Your task to perform on an android device: Open ESPN.com Image 0: 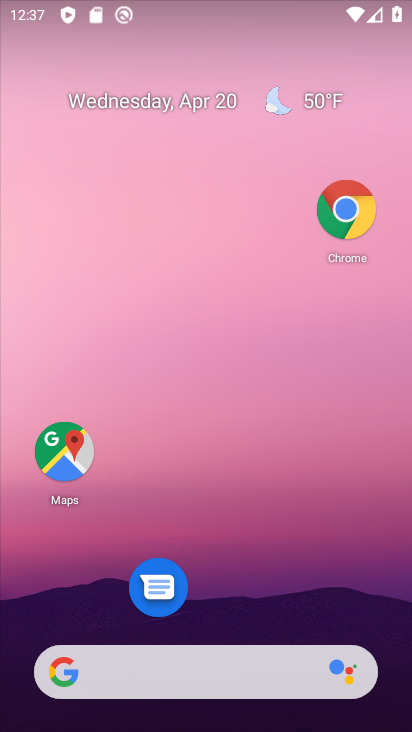
Step 0: click (349, 218)
Your task to perform on an android device: Open ESPN.com Image 1: 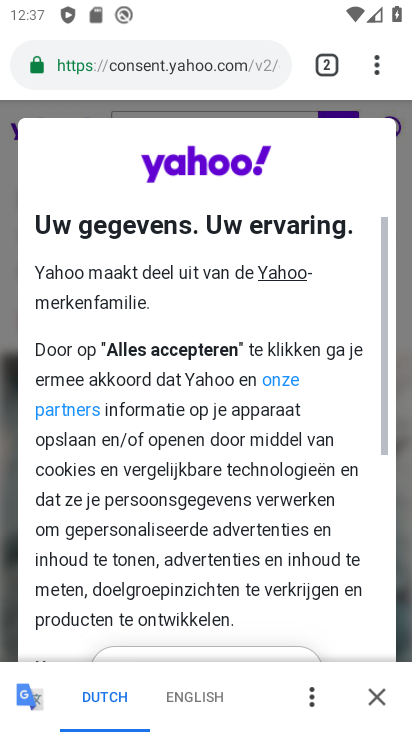
Step 1: click (387, 706)
Your task to perform on an android device: Open ESPN.com Image 2: 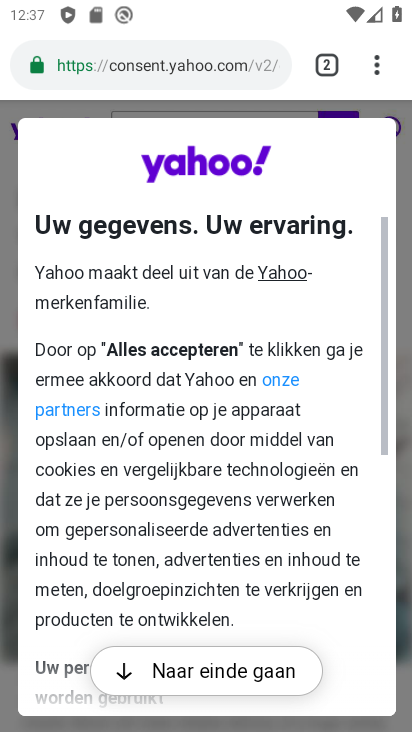
Step 2: click (326, 63)
Your task to perform on an android device: Open ESPN.com Image 3: 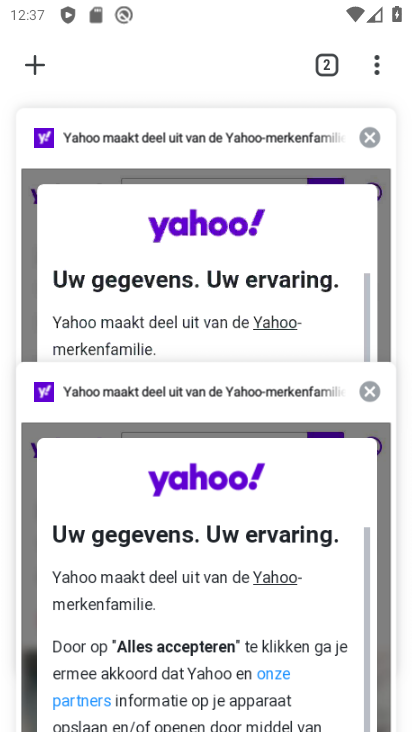
Step 3: click (33, 60)
Your task to perform on an android device: Open ESPN.com Image 4: 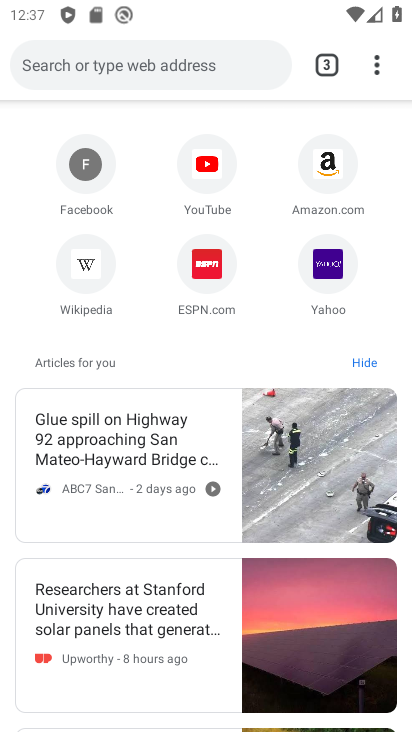
Step 4: click (174, 63)
Your task to perform on an android device: Open ESPN.com Image 5: 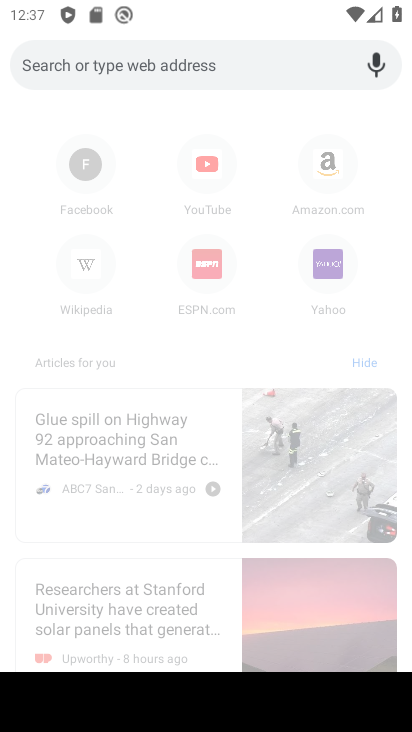
Step 5: type "ESP"
Your task to perform on an android device: Open ESPN.com Image 6: 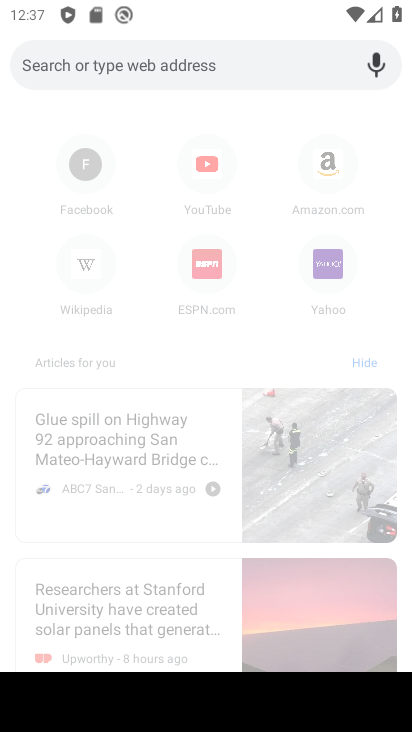
Step 6: click (216, 270)
Your task to perform on an android device: Open ESPN.com Image 7: 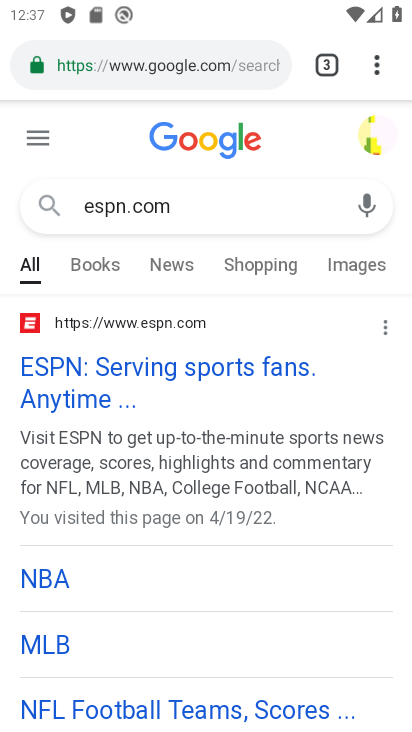
Step 7: task complete